Your task to perform on an android device: Go to Yahoo.com Image 0: 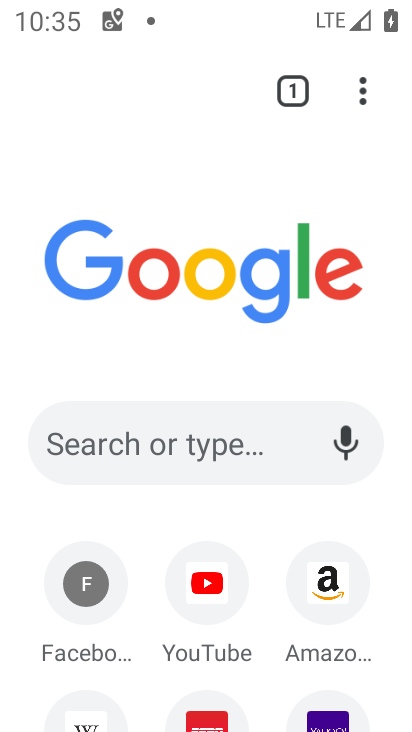
Step 0: click (105, 442)
Your task to perform on an android device: Go to Yahoo.com Image 1: 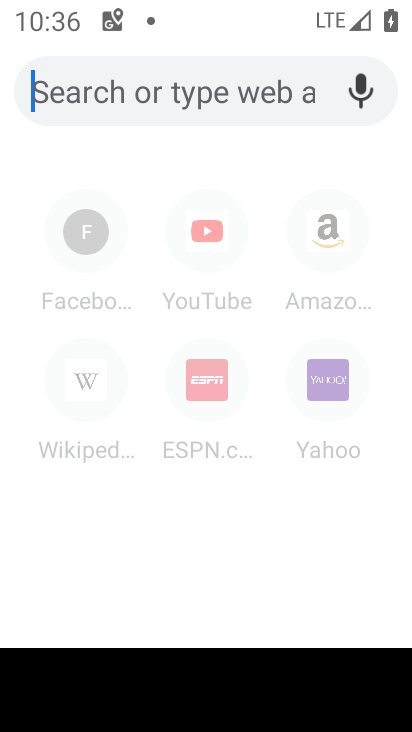
Step 1: type "yahoo.com"
Your task to perform on an android device: Go to Yahoo.com Image 2: 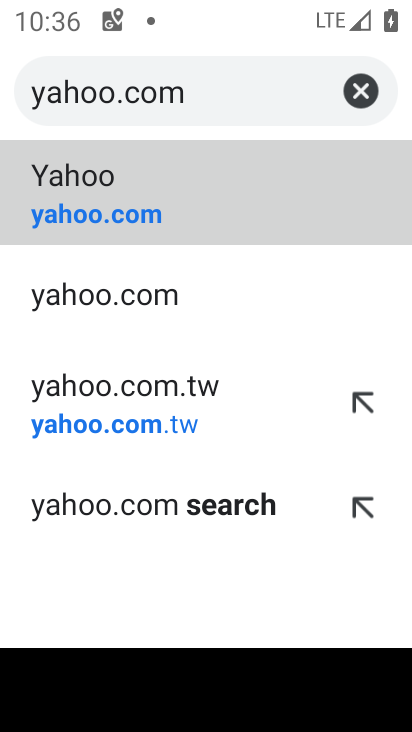
Step 2: click (88, 182)
Your task to perform on an android device: Go to Yahoo.com Image 3: 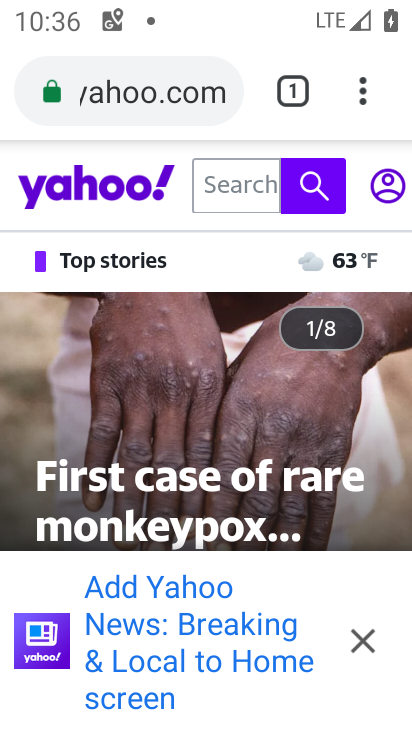
Step 3: task complete